Your task to perform on an android device: Open ESPN.com Image 0: 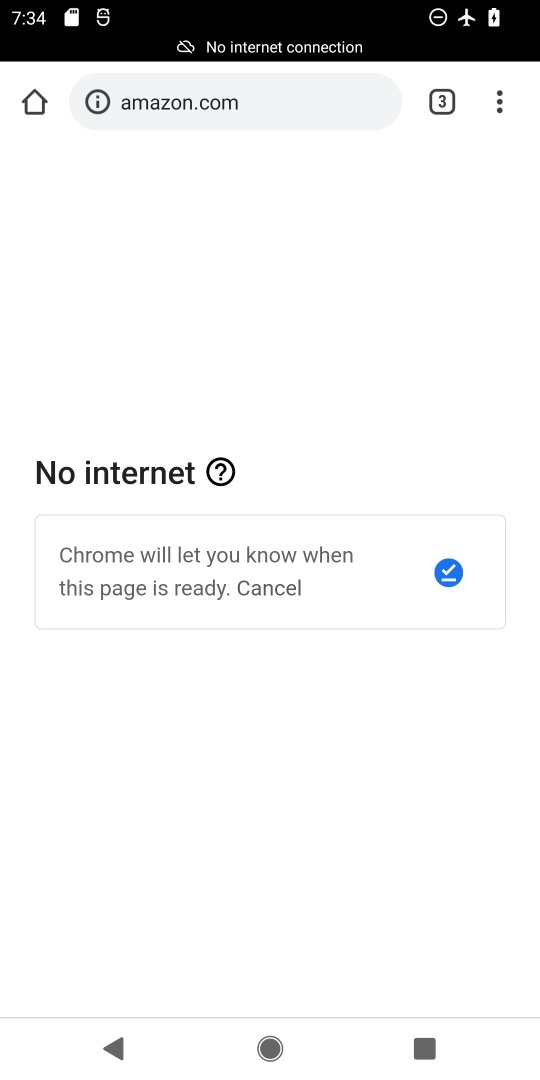
Step 0: press home button
Your task to perform on an android device: Open ESPN.com Image 1: 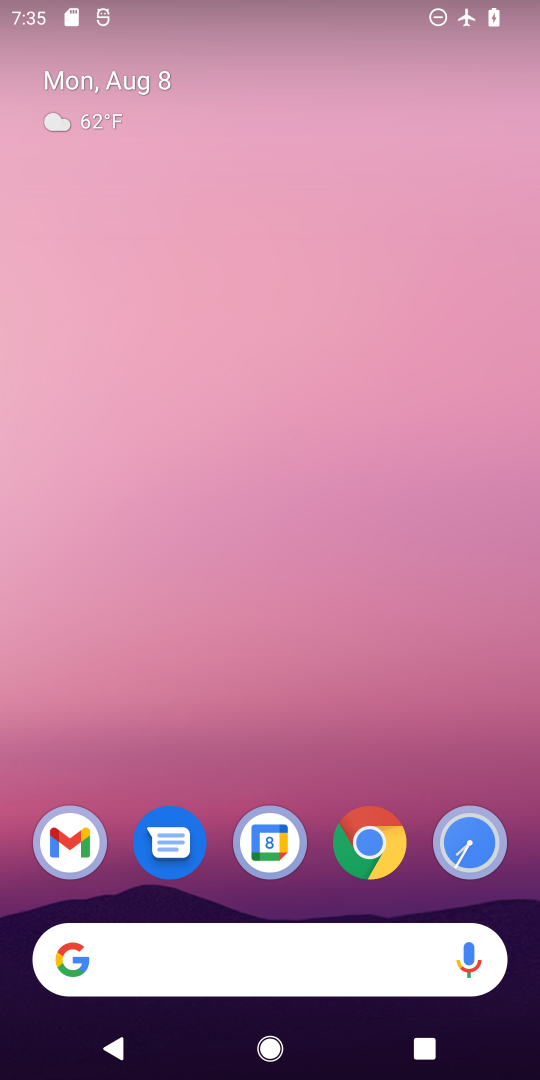
Step 1: click (380, 817)
Your task to perform on an android device: Open ESPN.com Image 2: 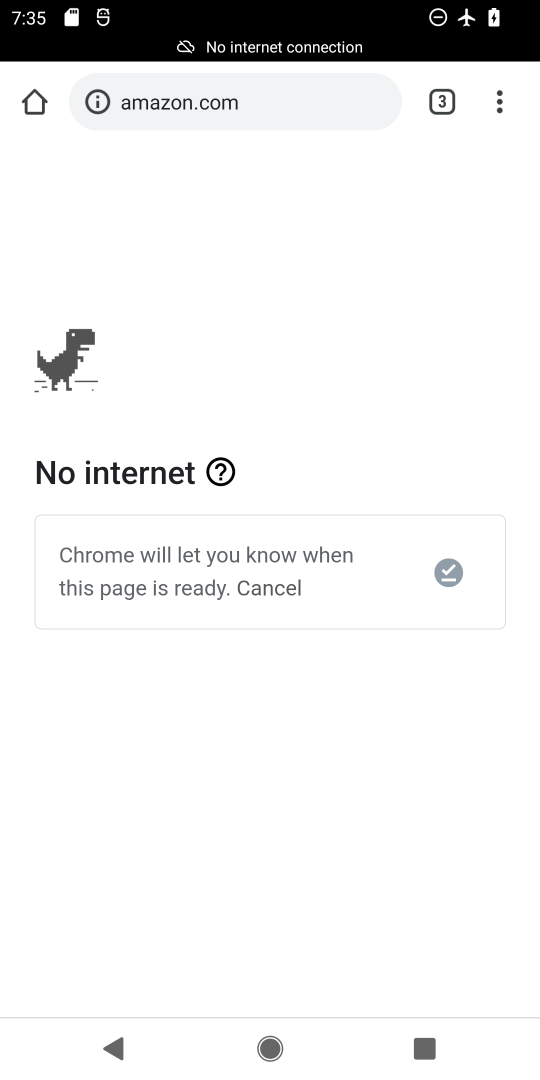
Step 2: click (426, 103)
Your task to perform on an android device: Open ESPN.com Image 3: 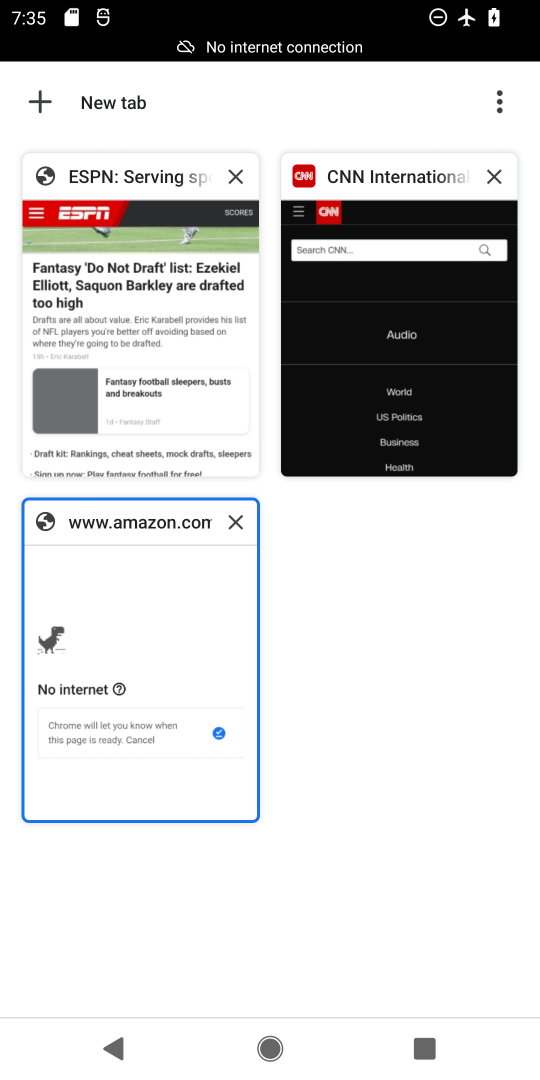
Step 3: click (107, 326)
Your task to perform on an android device: Open ESPN.com Image 4: 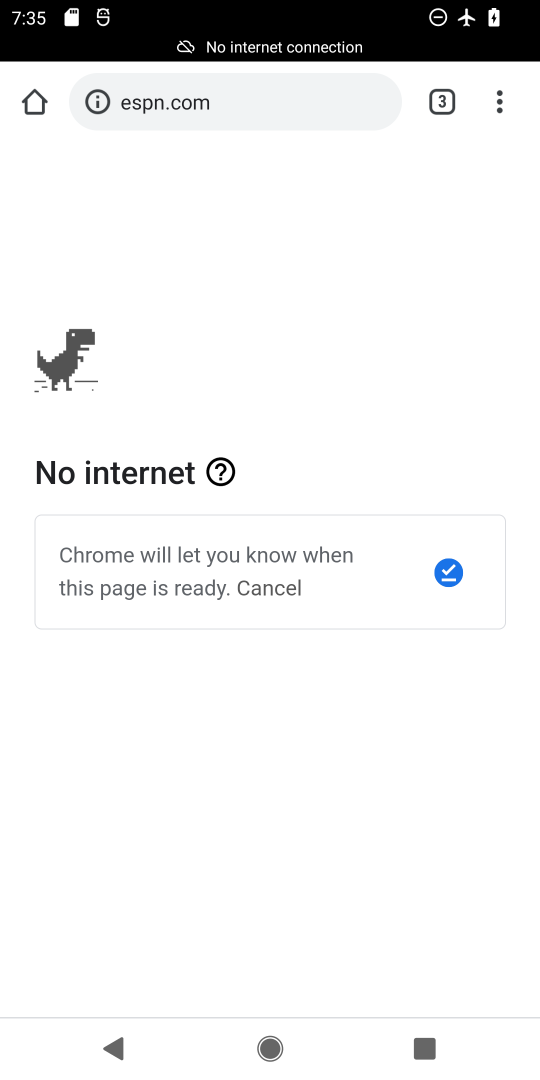
Step 4: task complete